Your task to perform on an android device: Open network settings Image 0: 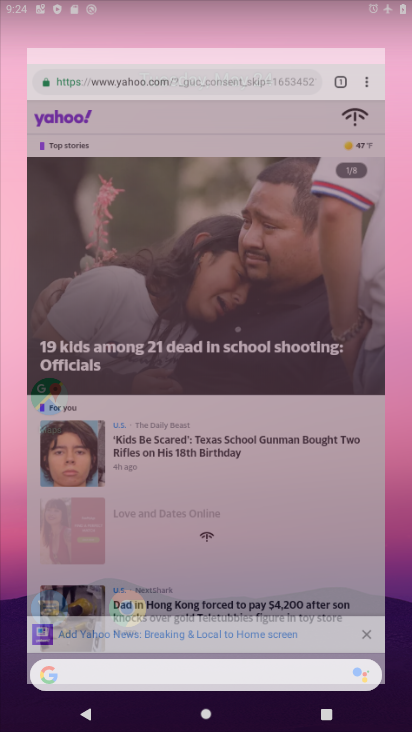
Step 0: drag from (226, 641) to (225, 312)
Your task to perform on an android device: Open network settings Image 1: 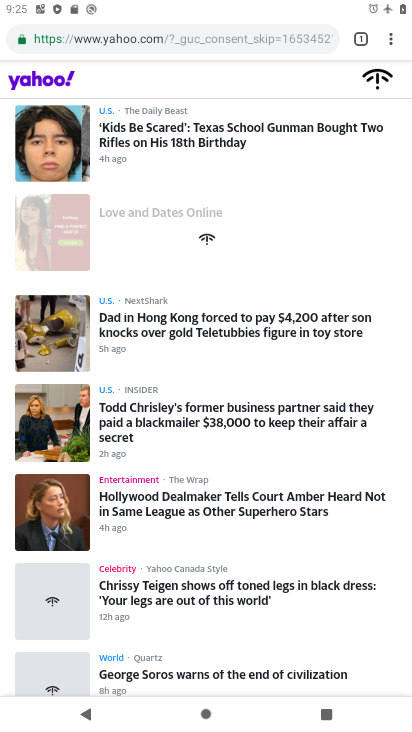
Step 1: press home button
Your task to perform on an android device: Open network settings Image 2: 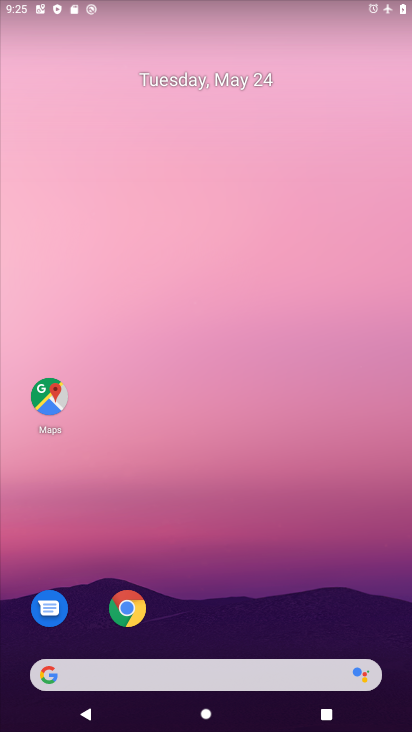
Step 2: drag from (199, 658) to (317, 5)
Your task to perform on an android device: Open network settings Image 3: 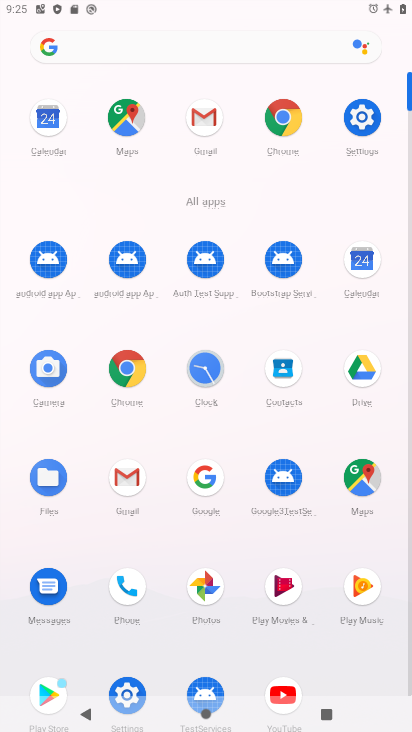
Step 3: click (367, 134)
Your task to perform on an android device: Open network settings Image 4: 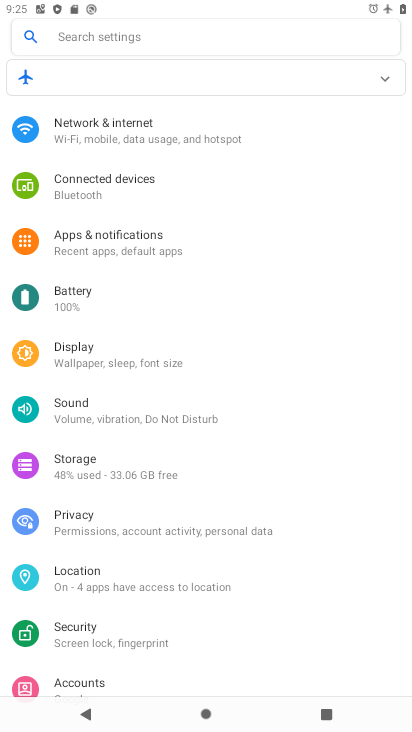
Step 4: click (188, 138)
Your task to perform on an android device: Open network settings Image 5: 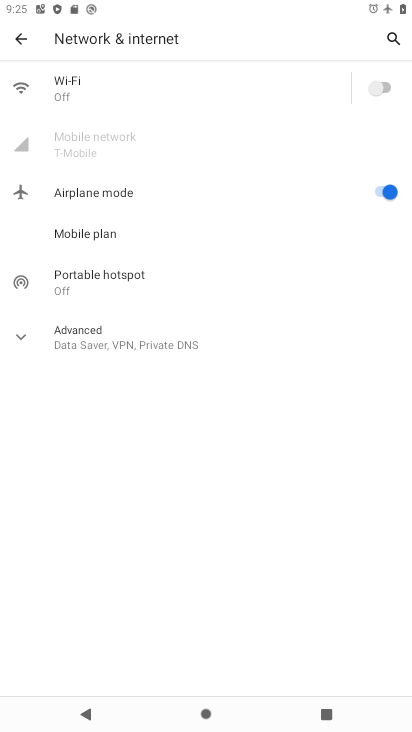
Step 5: task complete